Your task to perform on an android device: open device folders in google photos Image 0: 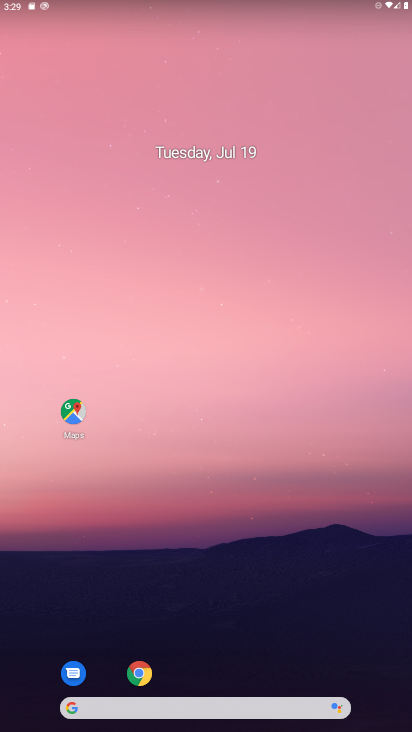
Step 0: drag from (227, 660) to (312, 0)
Your task to perform on an android device: open device folders in google photos Image 1: 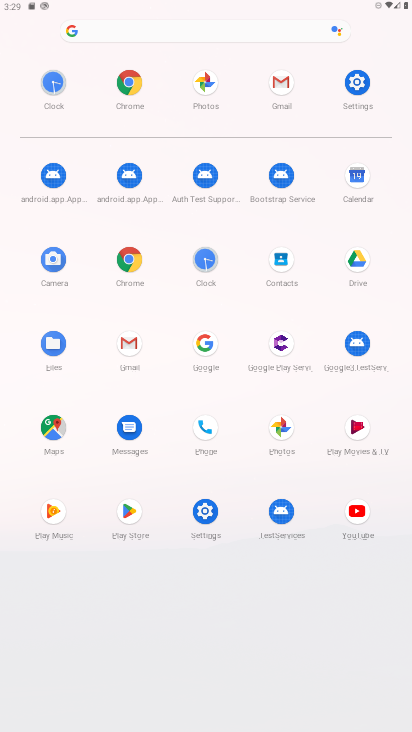
Step 1: click (278, 436)
Your task to perform on an android device: open device folders in google photos Image 2: 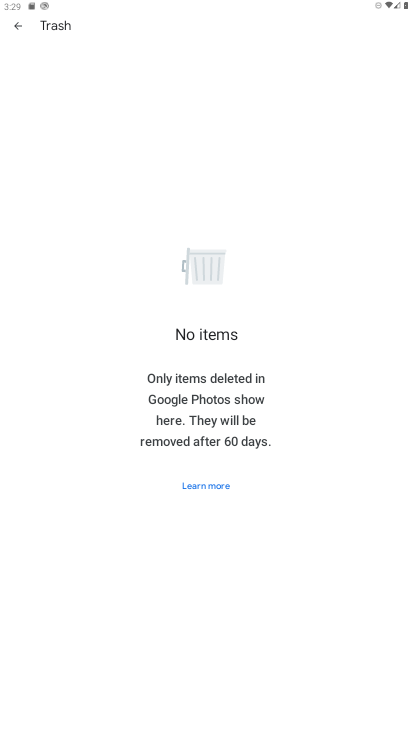
Step 2: click (21, 21)
Your task to perform on an android device: open device folders in google photos Image 3: 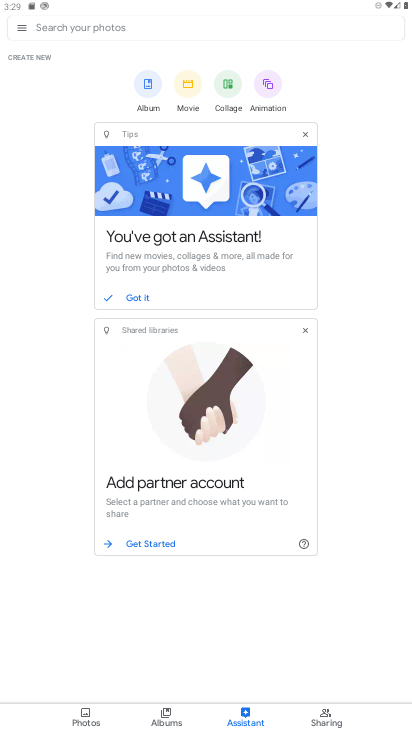
Step 3: click (20, 25)
Your task to perform on an android device: open device folders in google photos Image 4: 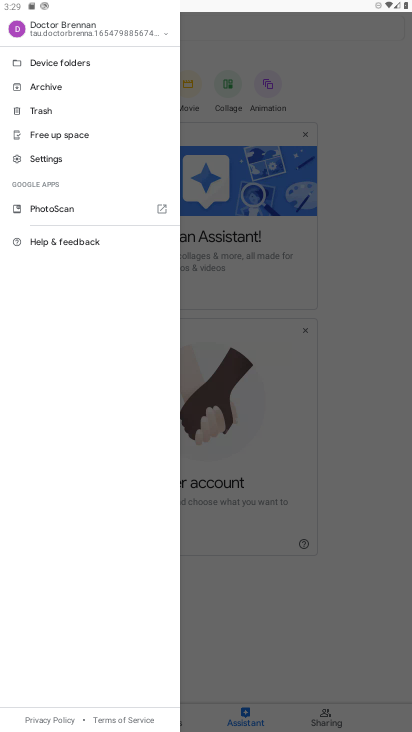
Step 4: click (49, 158)
Your task to perform on an android device: open device folders in google photos Image 5: 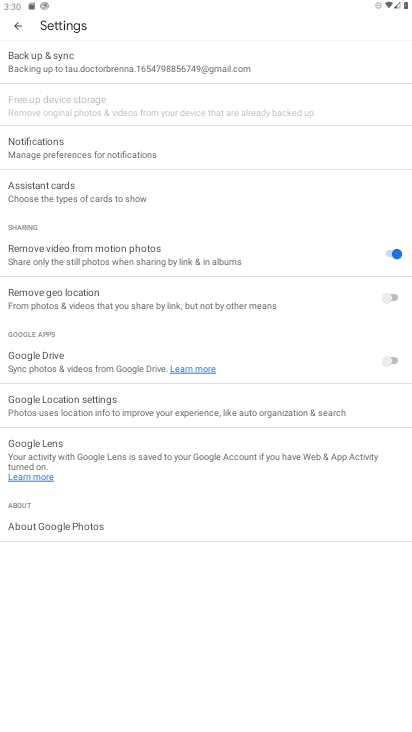
Step 5: click (19, 18)
Your task to perform on an android device: open device folders in google photos Image 6: 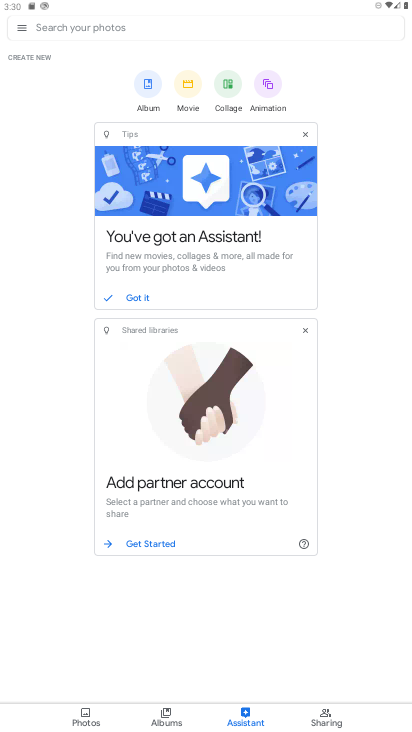
Step 6: click (14, 28)
Your task to perform on an android device: open device folders in google photos Image 7: 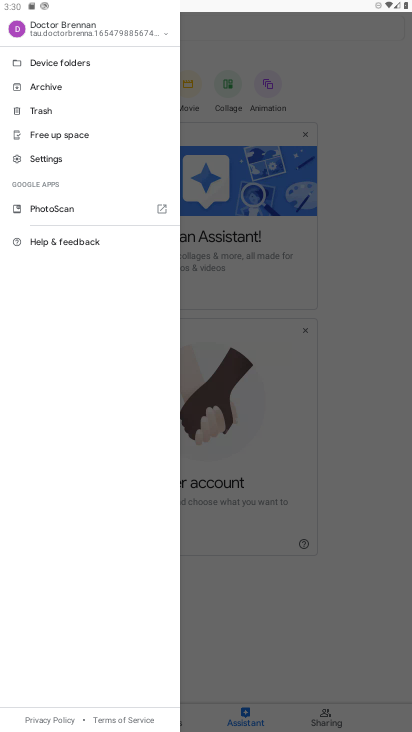
Step 7: click (61, 65)
Your task to perform on an android device: open device folders in google photos Image 8: 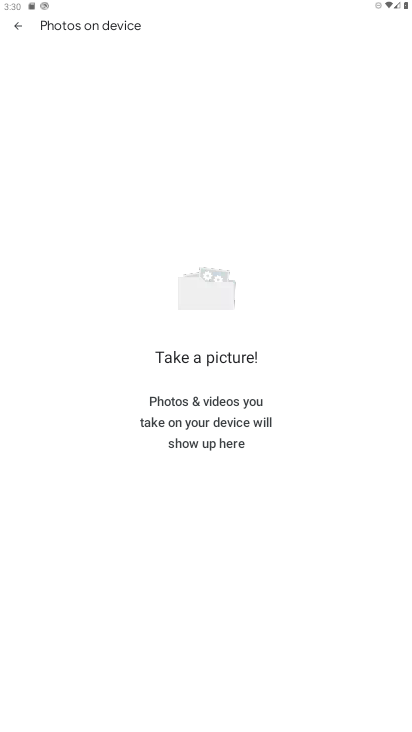
Step 8: task complete